Your task to perform on an android device: allow notifications from all sites in the chrome app Image 0: 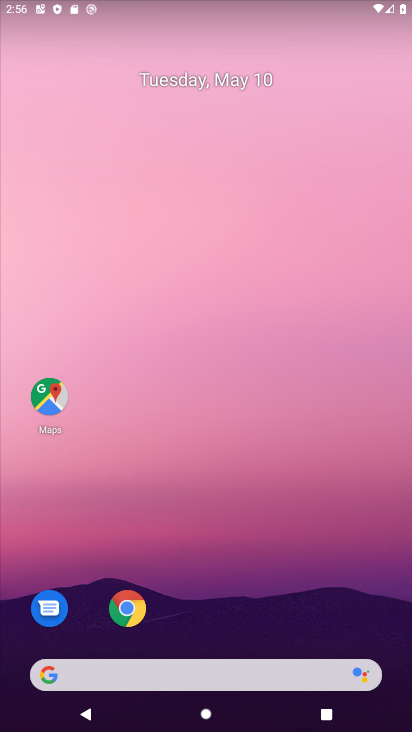
Step 0: click (132, 605)
Your task to perform on an android device: allow notifications from all sites in the chrome app Image 1: 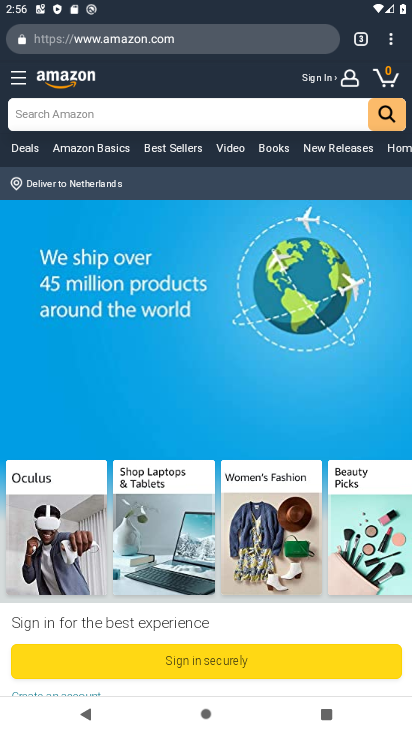
Step 1: click (386, 35)
Your task to perform on an android device: allow notifications from all sites in the chrome app Image 2: 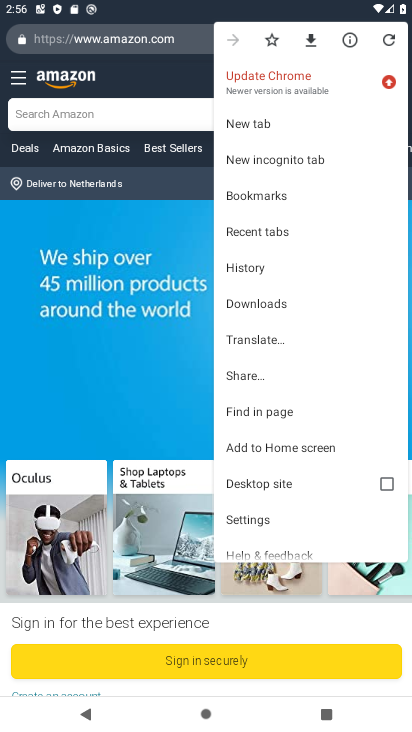
Step 2: click (262, 521)
Your task to perform on an android device: allow notifications from all sites in the chrome app Image 3: 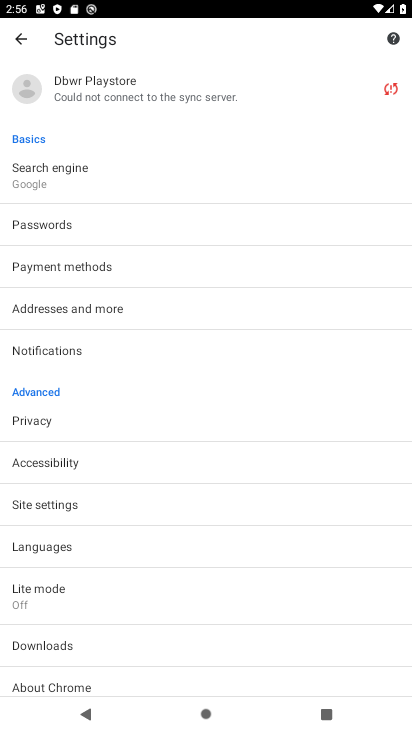
Step 3: click (56, 360)
Your task to perform on an android device: allow notifications from all sites in the chrome app Image 4: 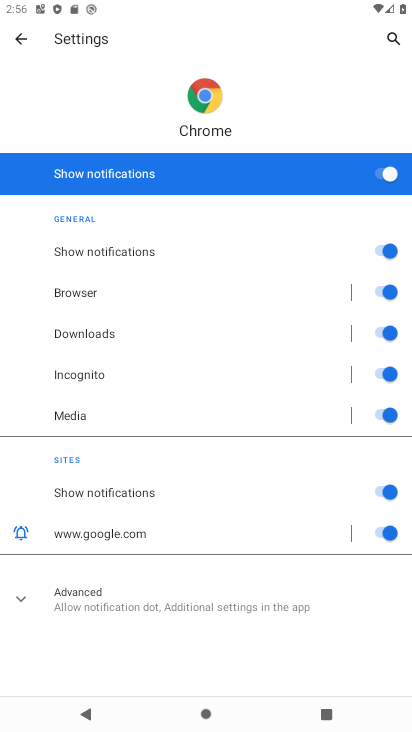
Step 4: task complete